Your task to perform on an android device: turn off priority inbox in the gmail app Image 0: 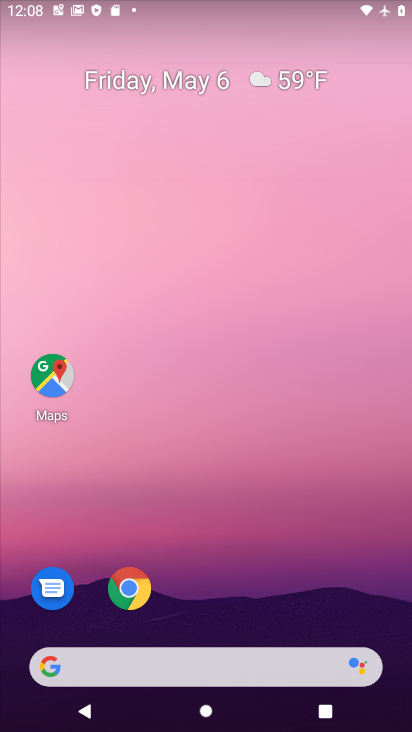
Step 0: drag from (220, 668) to (411, 156)
Your task to perform on an android device: turn off priority inbox in the gmail app Image 1: 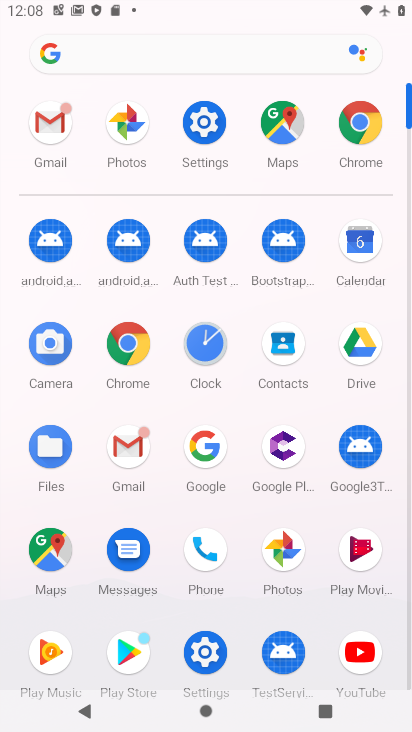
Step 1: click (44, 119)
Your task to perform on an android device: turn off priority inbox in the gmail app Image 2: 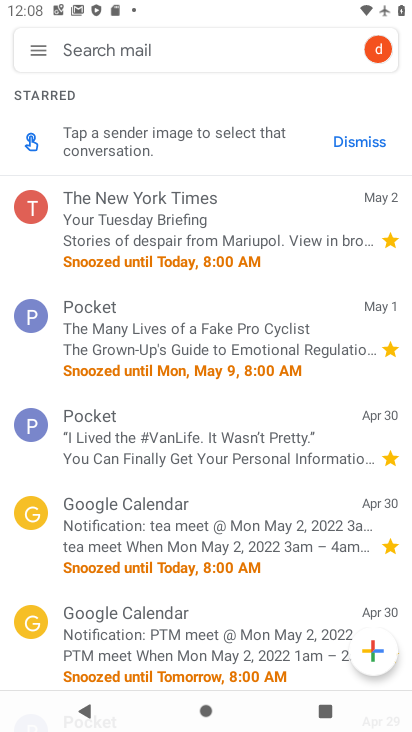
Step 2: click (45, 56)
Your task to perform on an android device: turn off priority inbox in the gmail app Image 3: 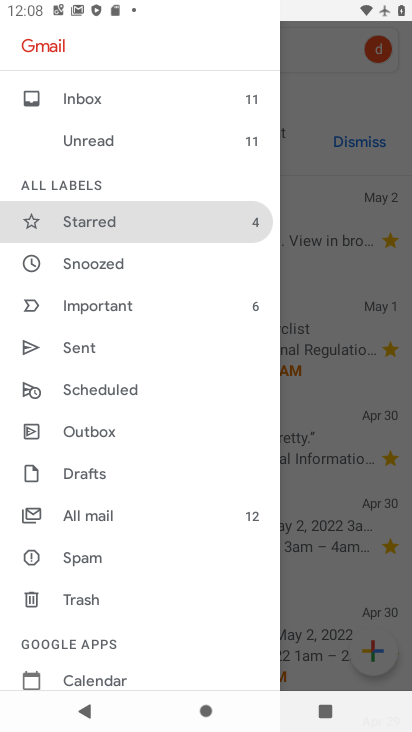
Step 3: drag from (118, 639) to (265, 218)
Your task to perform on an android device: turn off priority inbox in the gmail app Image 4: 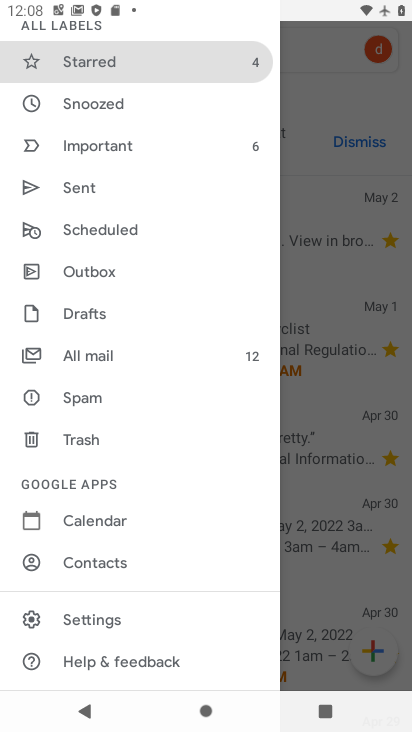
Step 4: click (102, 615)
Your task to perform on an android device: turn off priority inbox in the gmail app Image 5: 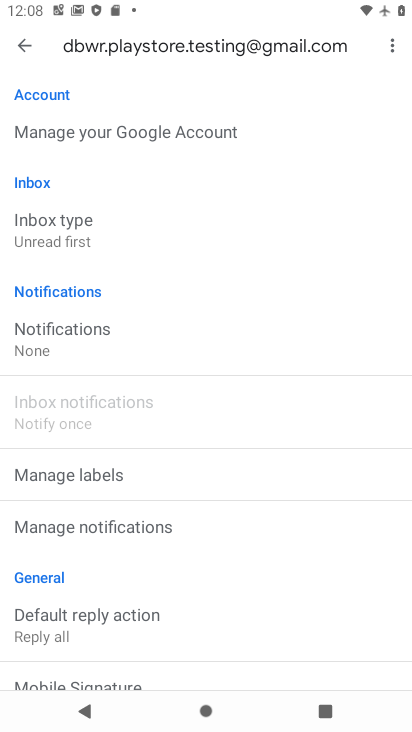
Step 5: click (42, 243)
Your task to perform on an android device: turn off priority inbox in the gmail app Image 6: 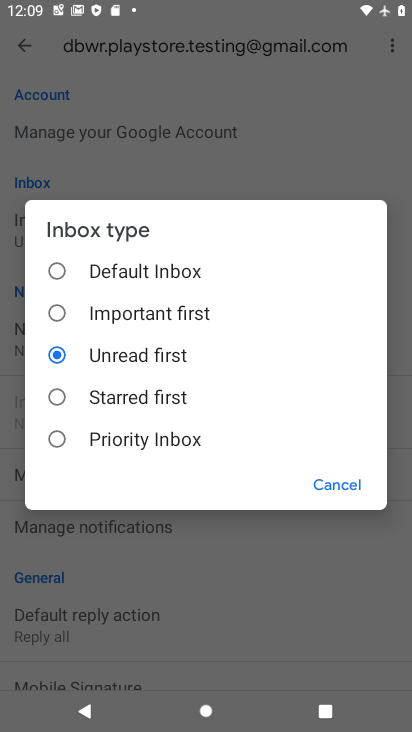
Step 6: task complete